Your task to perform on an android device: change text size in settings app Image 0: 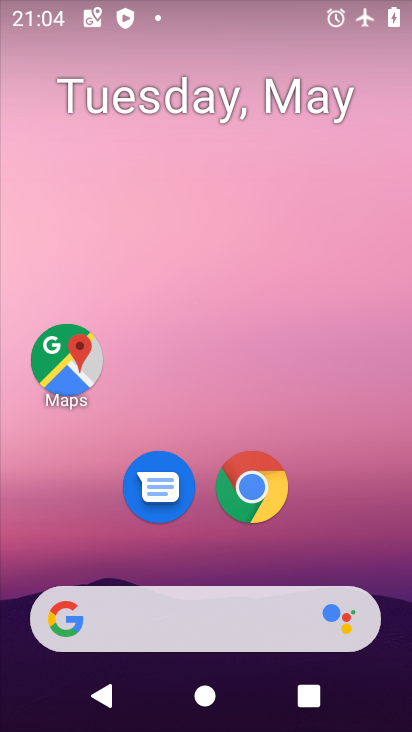
Step 0: drag from (343, 400) to (234, 34)
Your task to perform on an android device: change text size in settings app Image 1: 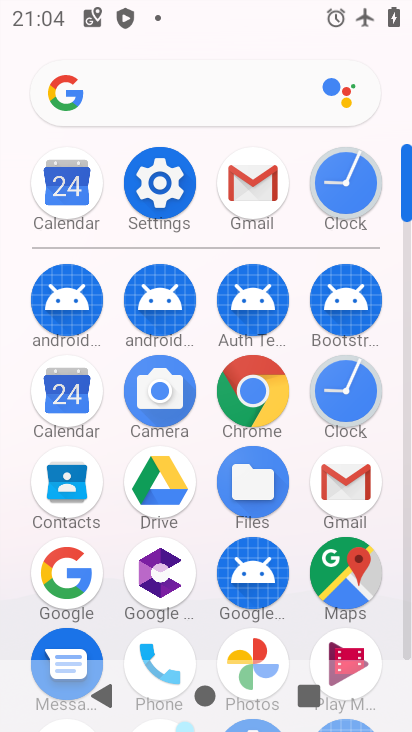
Step 1: click (167, 169)
Your task to perform on an android device: change text size in settings app Image 2: 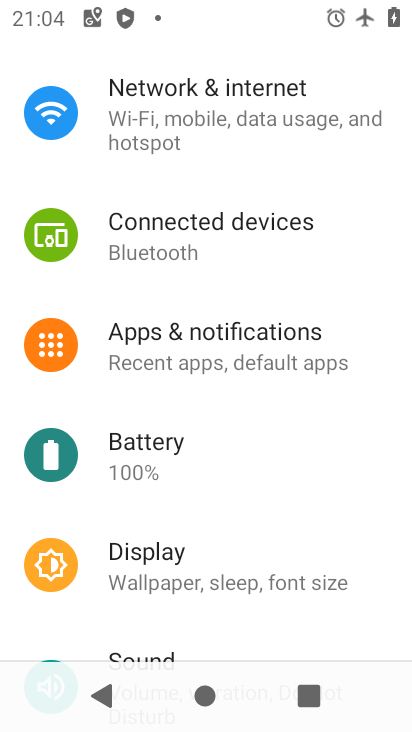
Step 2: click (171, 553)
Your task to perform on an android device: change text size in settings app Image 3: 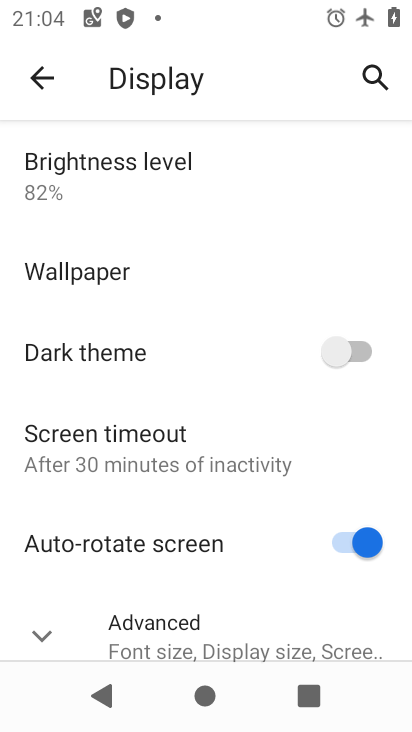
Step 3: drag from (219, 409) to (192, 96)
Your task to perform on an android device: change text size in settings app Image 4: 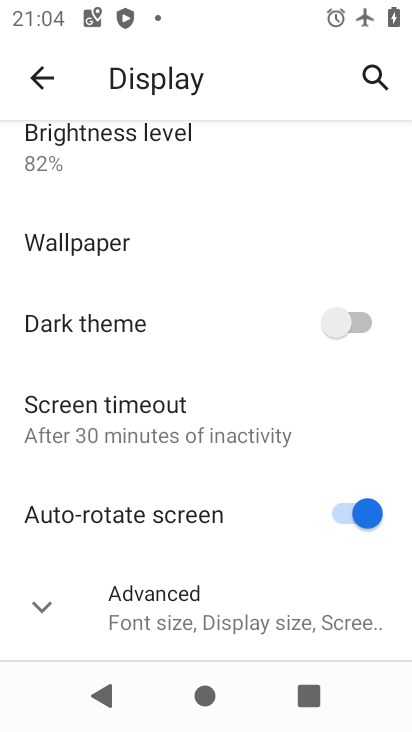
Step 4: click (128, 607)
Your task to perform on an android device: change text size in settings app Image 5: 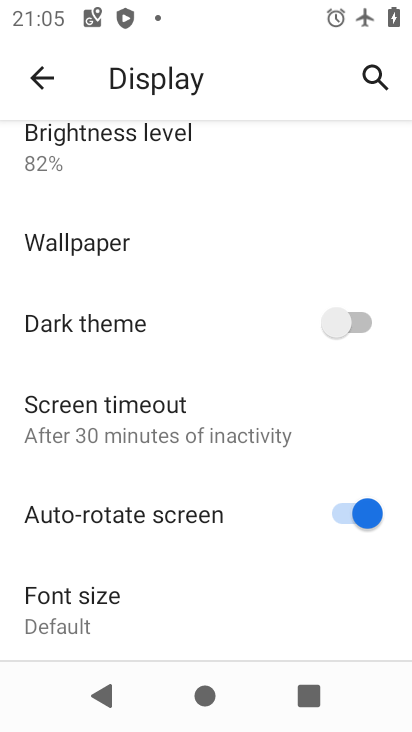
Step 5: click (73, 588)
Your task to perform on an android device: change text size in settings app Image 6: 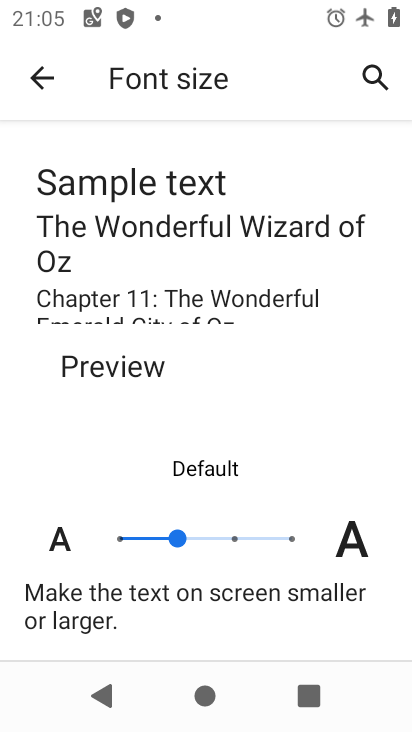
Step 6: click (243, 535)
Your task to perform on an android device: change text size in settings app Image 7: 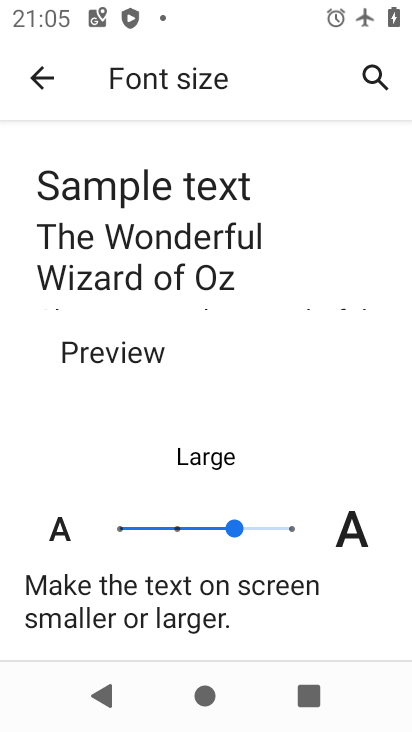
Step 7: task complete